Your task to perform on an android device: change the clock display to analog Image 0: 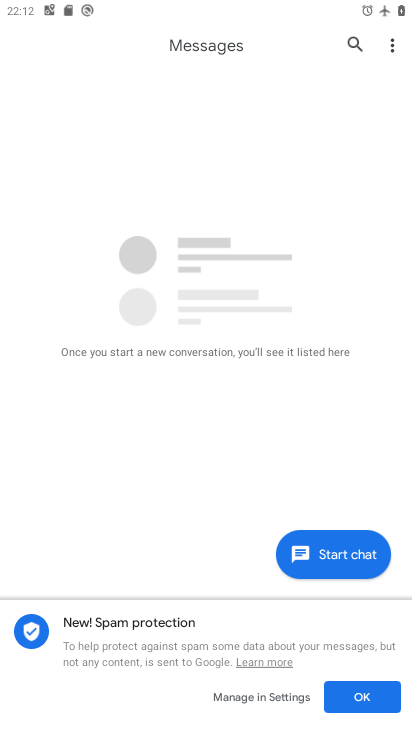
Step 0: press home button
Your task to perform on an android device: change the clock display to analog Image 1: 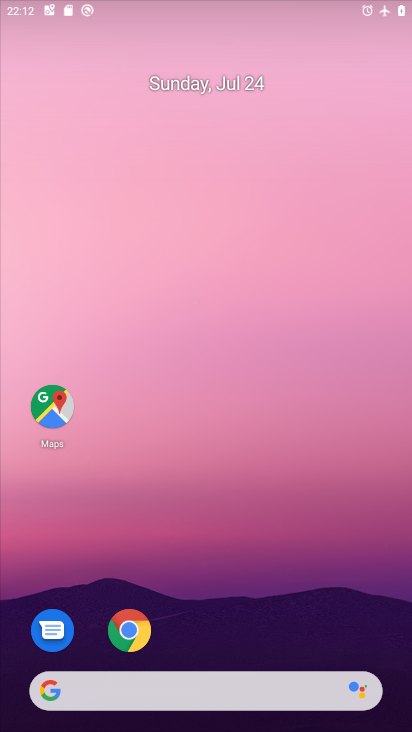
Step 1: drag from (220, 594) to (230, 198)
Your task to perform on an android device: change the clock display to analog Image 2: 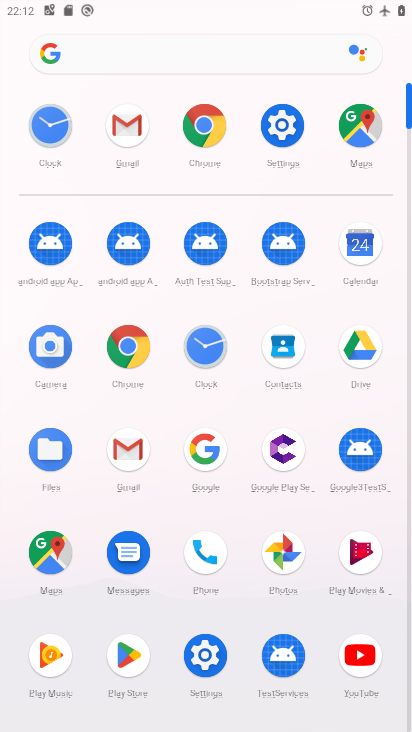
Step 2: click (207, 339)
Your task to perform on an android device: change the clock display to analog Image 3: 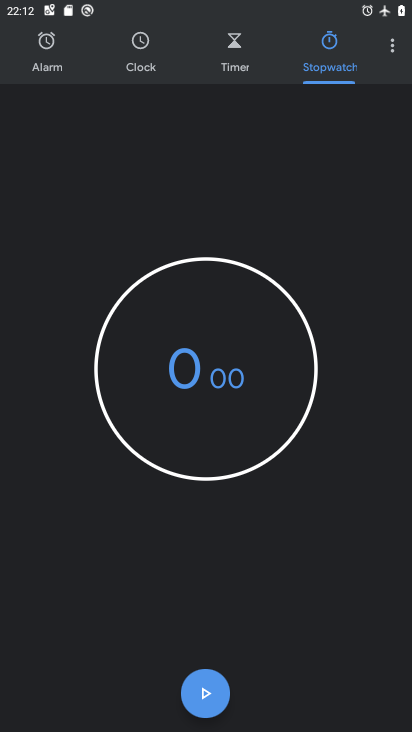
Step 3: click (397, 50)
Your task to perform on an android device: change the clock display to analog Image 4: 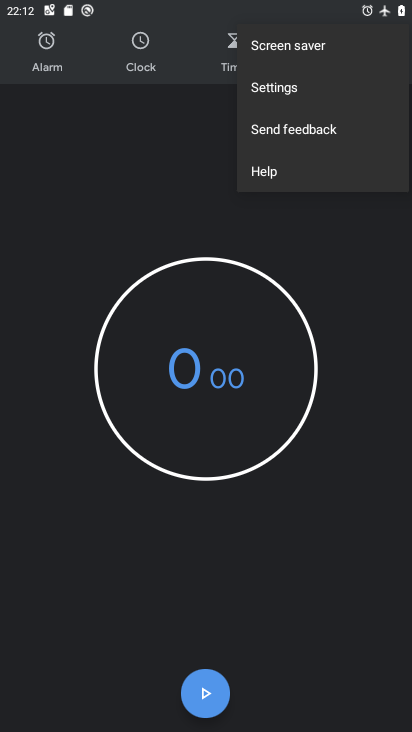
Step 4: click (288, 84)
Your task to perform on an android device: change the clock display to analog Image 5: 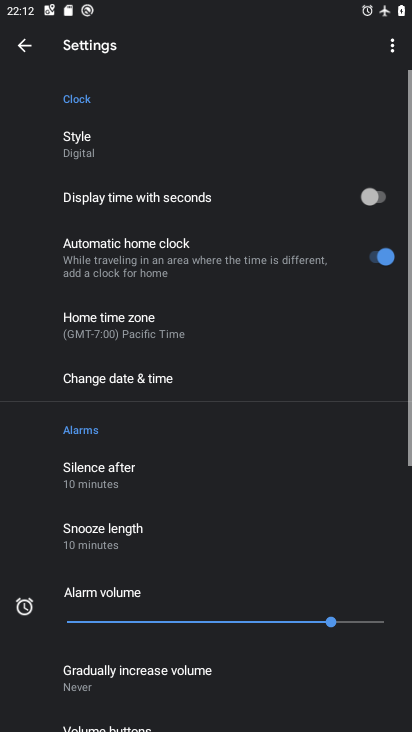
Step 5: click (92, 140)
Your task to perform on an android device: change the clock display to analog Image 6: 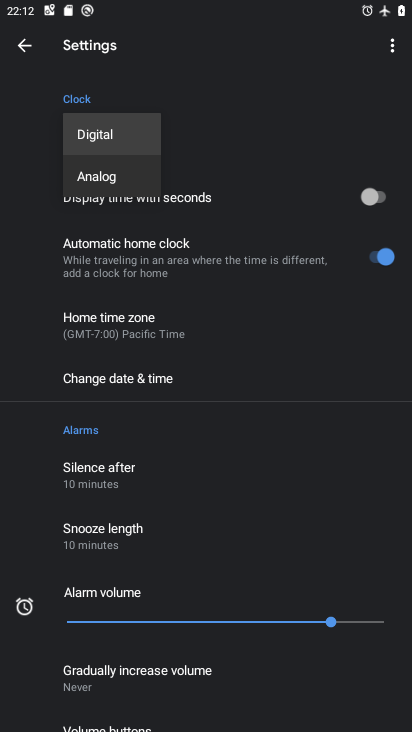
Step 6: click (94, 170)
Your task to perform on an android device: change the clock display to analog Image 7: 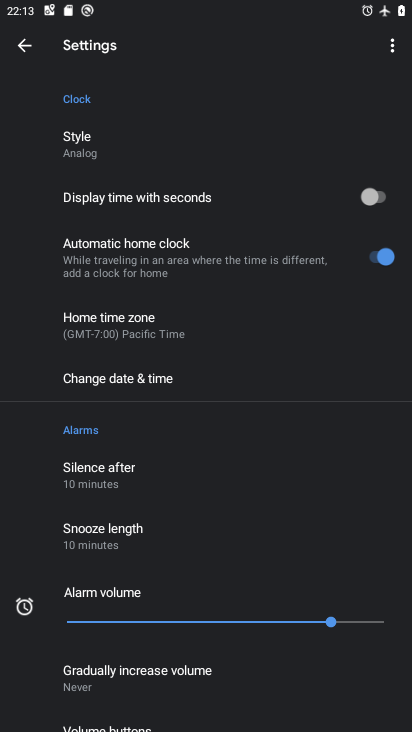
Step 7: task complete